Your task to perform on an android device: Go to ESPN.com Image 0: 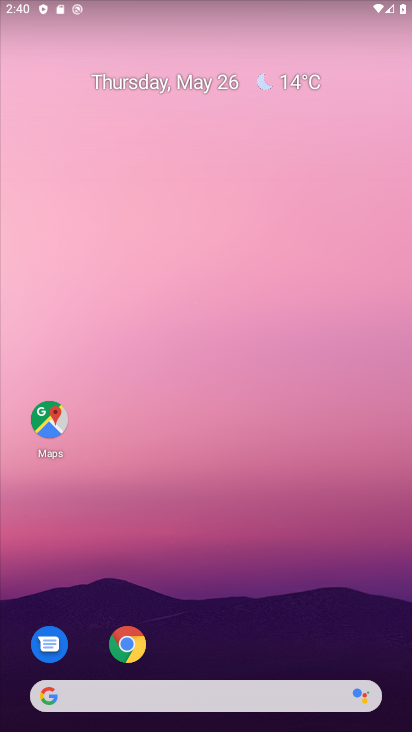
Step 0: drag from (310, 584) to (284, 244)
Your task to perform on an android device: Go to ESPN.com Image 1: 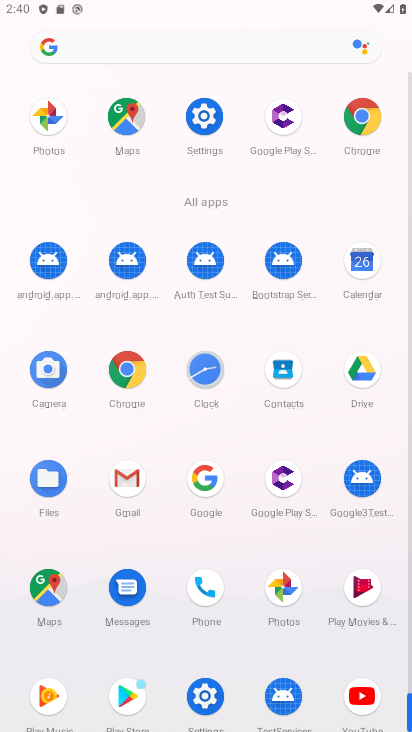
Step 1: click (126, 382)
Your task to perform on an android device: Go to ESPN.com Image 2: 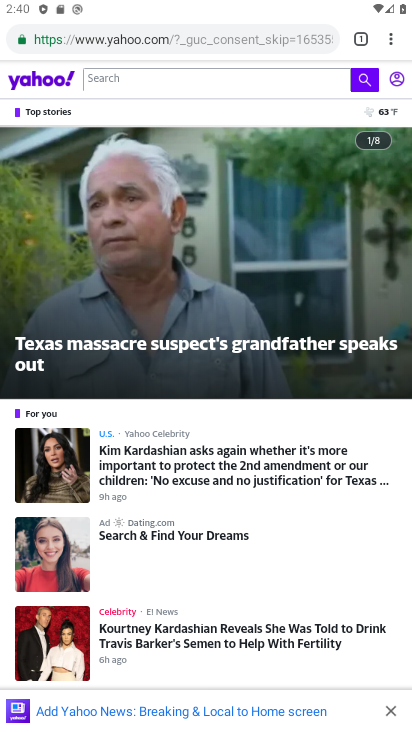
Step 2: click (187, 33)
Your task to perform on an android device: Go to ESPN.com Image 3: 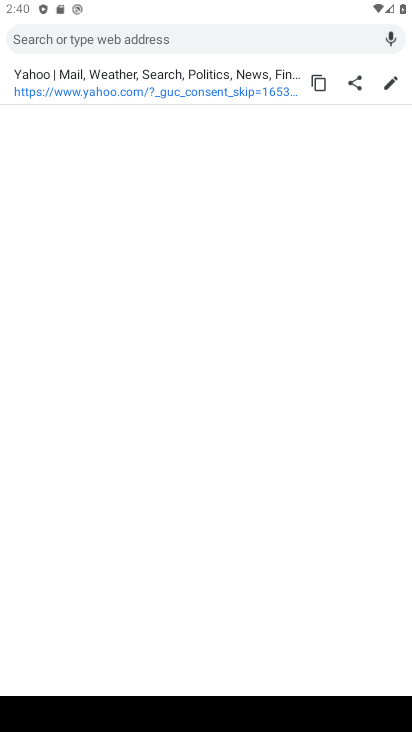
Step 3: type "espn.com"
Your task to perform on an android device: Go to ESPN.com Image 4: 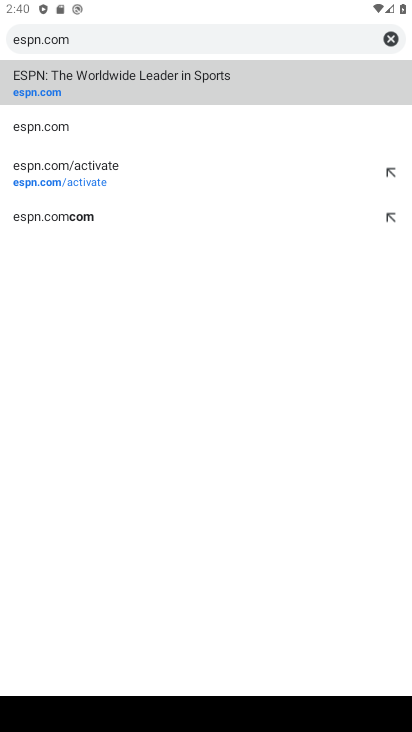
Step 4: click (79, 68)
Your task to perform on an android device: Go to ESPN.com Image 5: 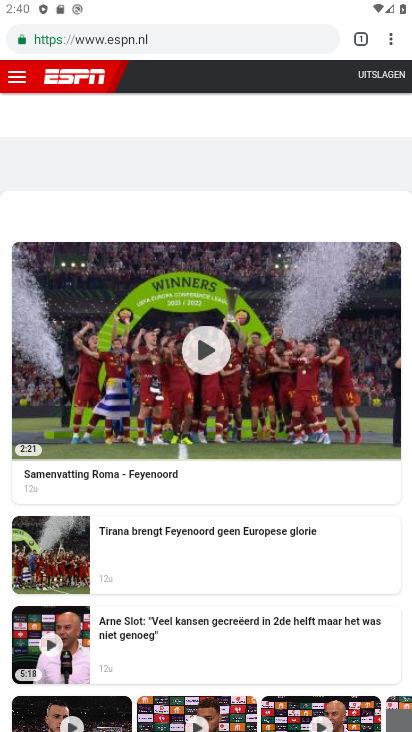
Step 5: task complete